Your task to perform on an android device: Add "asus rog" to the cart on walmart, then select checkout. Image 0: 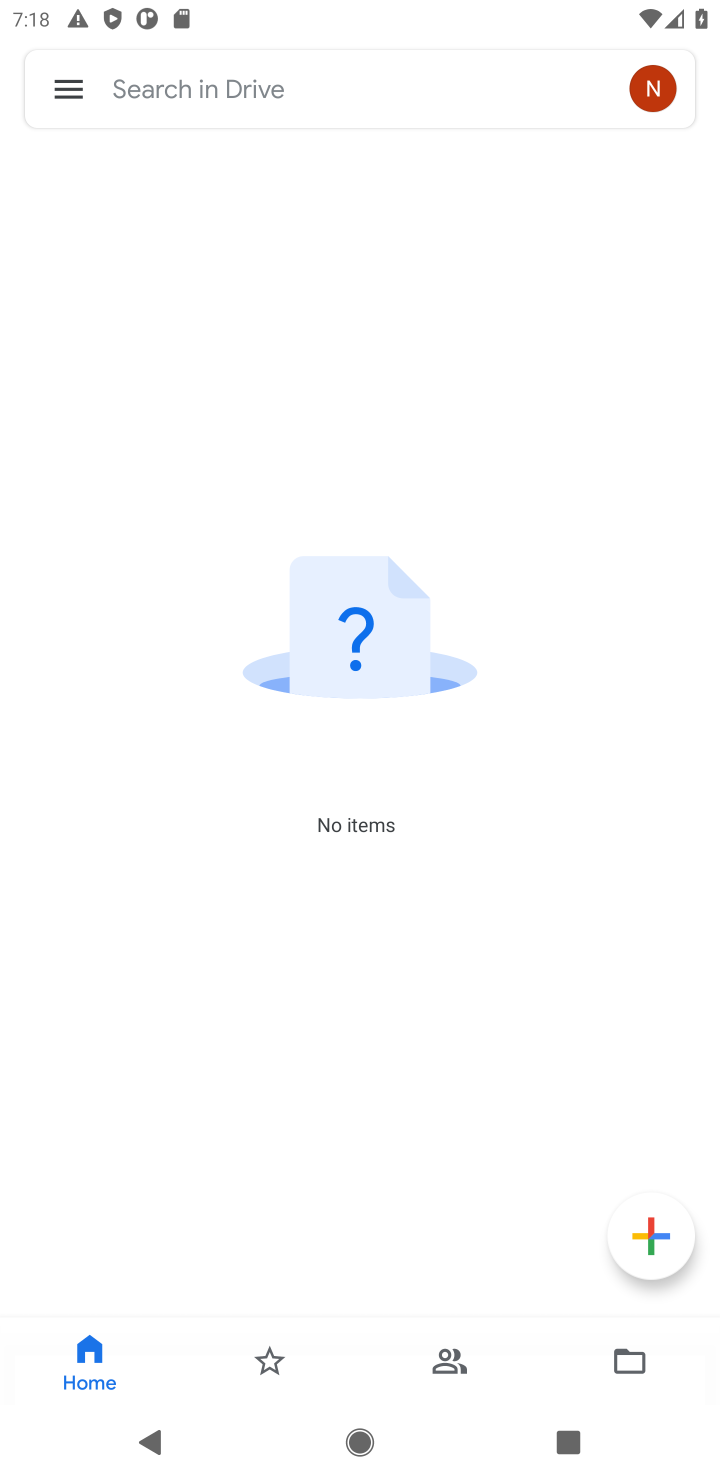
Step 0: press home button
Your task to perform on an android device: Add "asus rog" to the cart on walmart, then select checkout. Image 1: 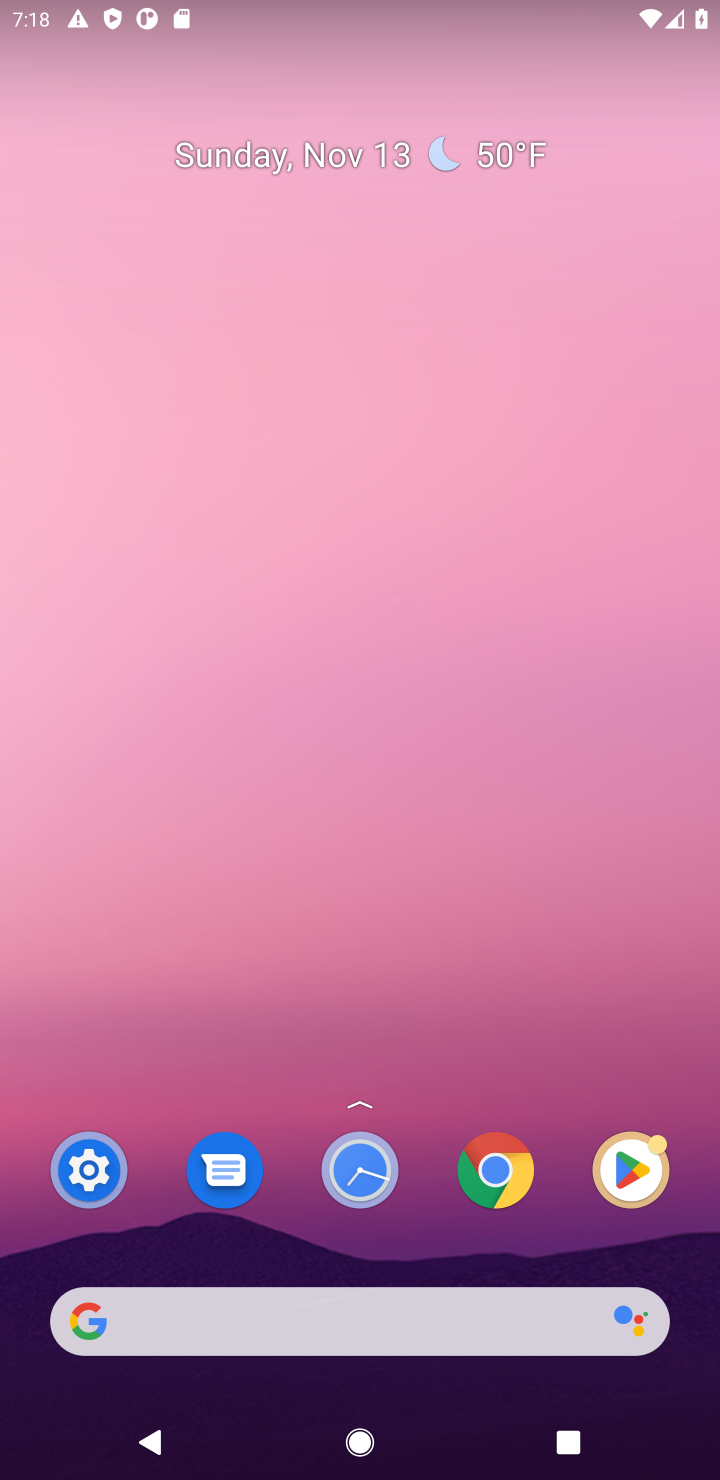
Step 1: click (249, 1314)
Your task to perform on an android device: Add "asus rog" to the cart on walmart, then select checkout. Image 2: 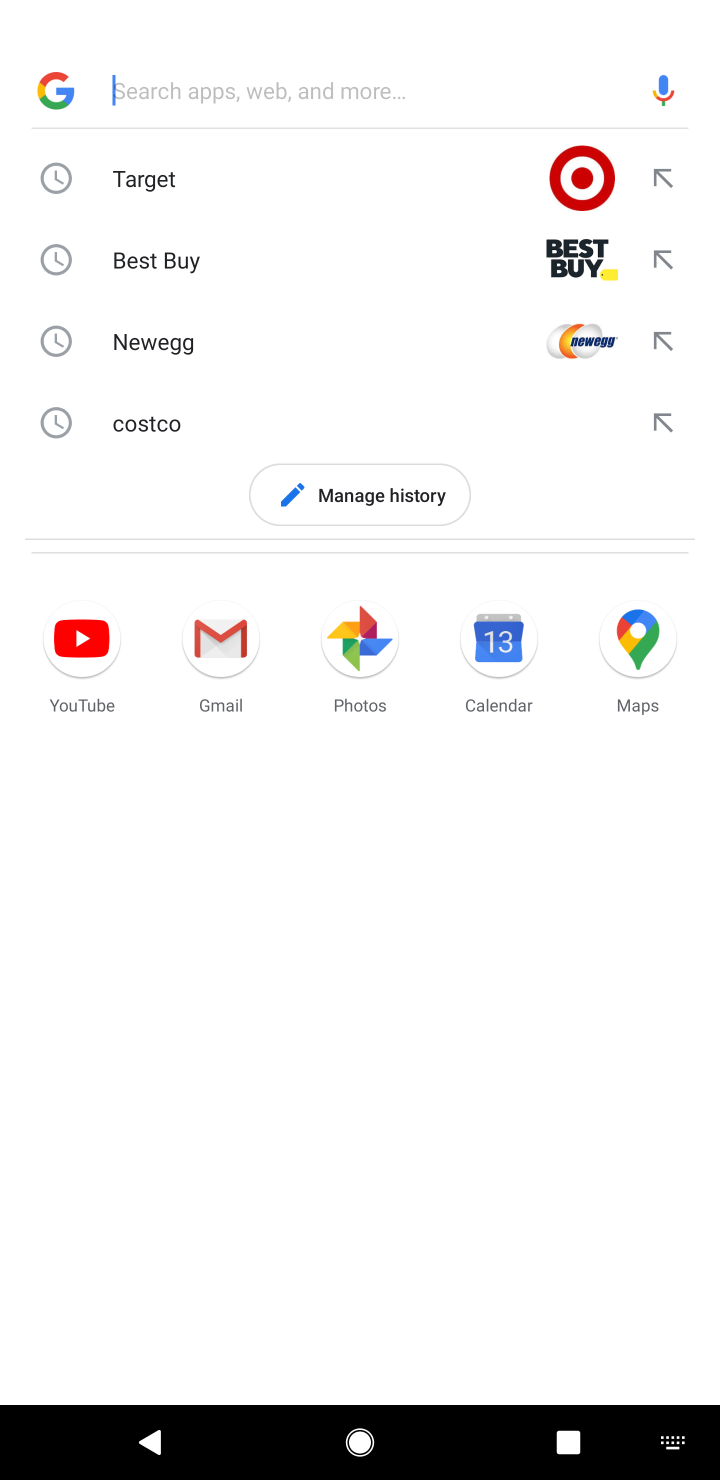
Step 2: type "walmart"
Your task to perform on an android device: Add "asus rog" to the cart on walmart, then select checkout. Image 3: 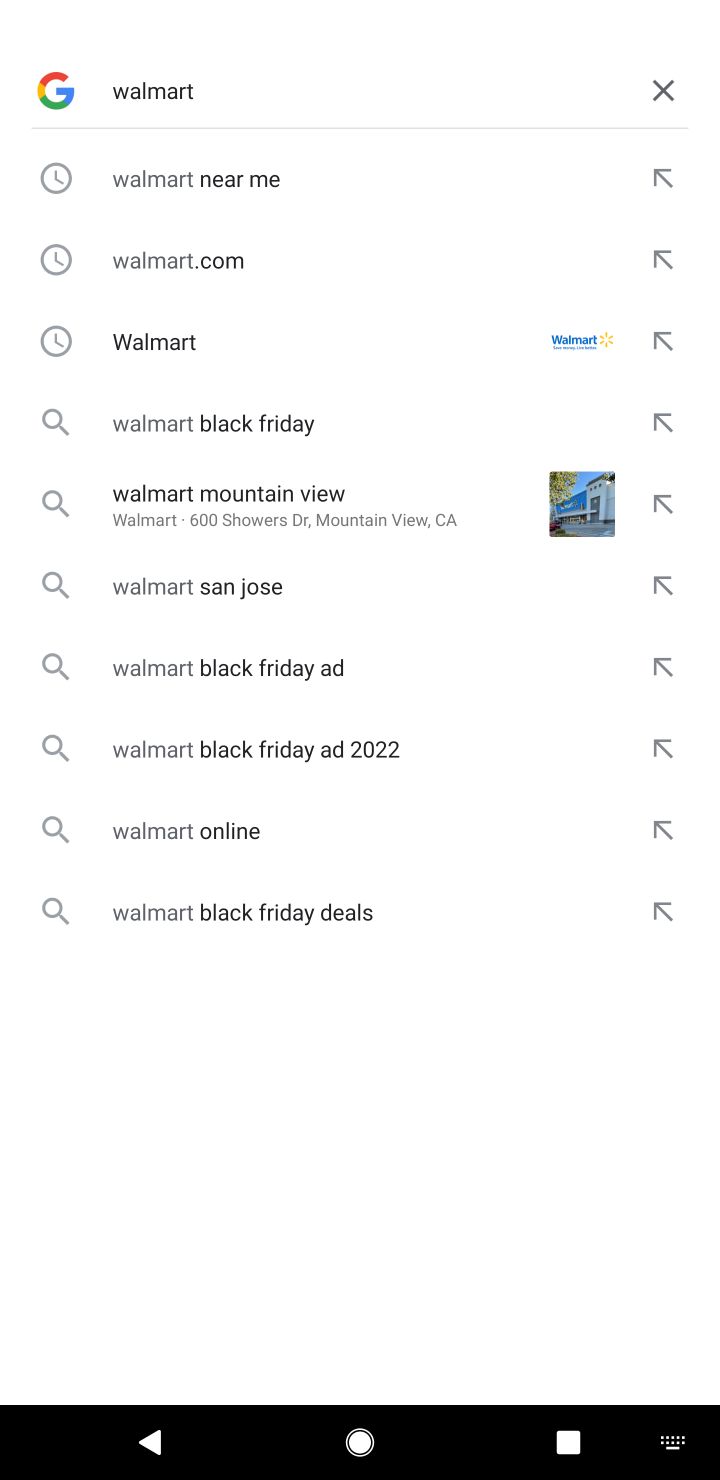
Step 3: click (168, 200)
Your task to perform on an android device: Add "asus rog" to the cart on walmart, then select checkout. Image 4: 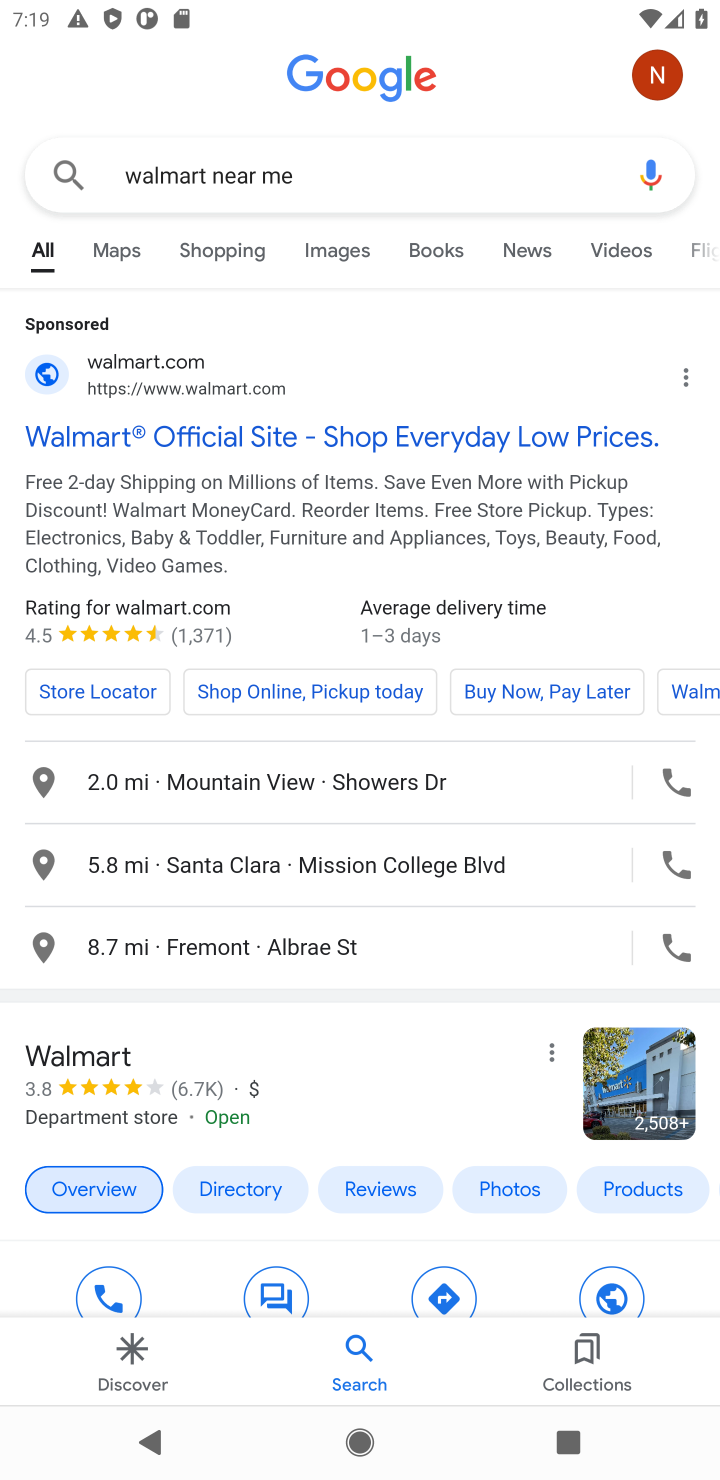
Step 4: click (184, 416)
Your task to perform on an android device: Add "asus rog" to the cart on walmart, then select checkout. Image 5: 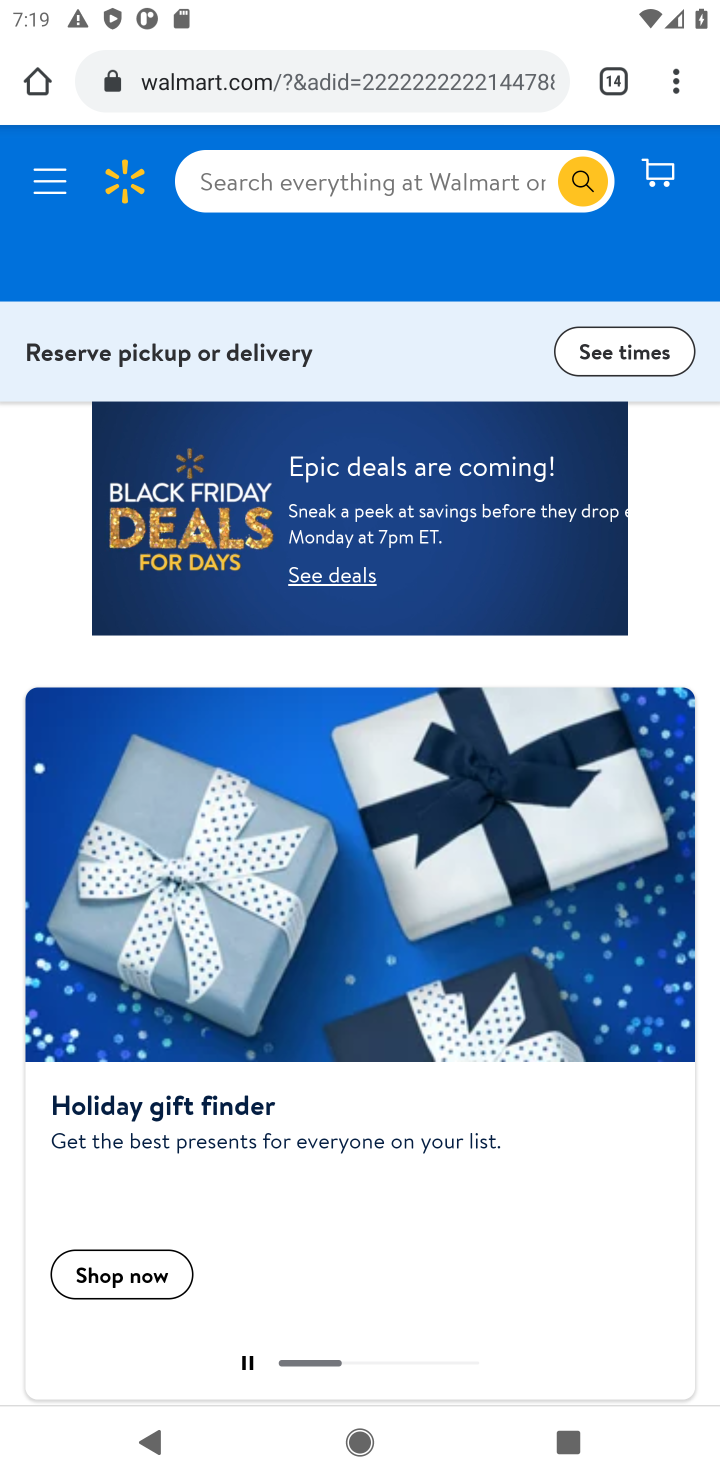
Step 5: task complete